Your task to perform on an android device: see creations saved in the google photos Image 0: 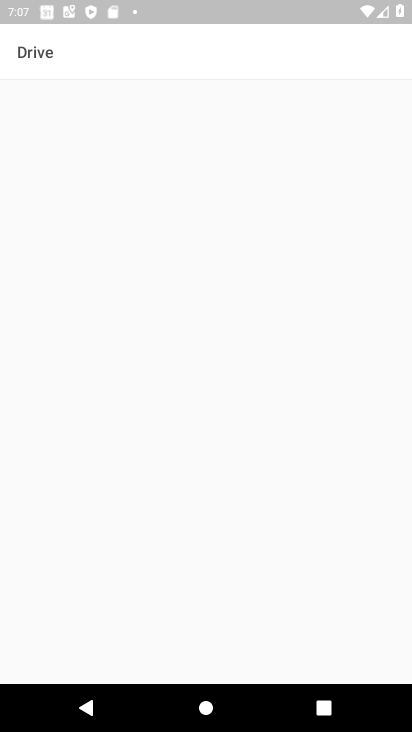
Step 0: press home button
Your task to perform on an android device: see creations saved in the google photos Image 1: 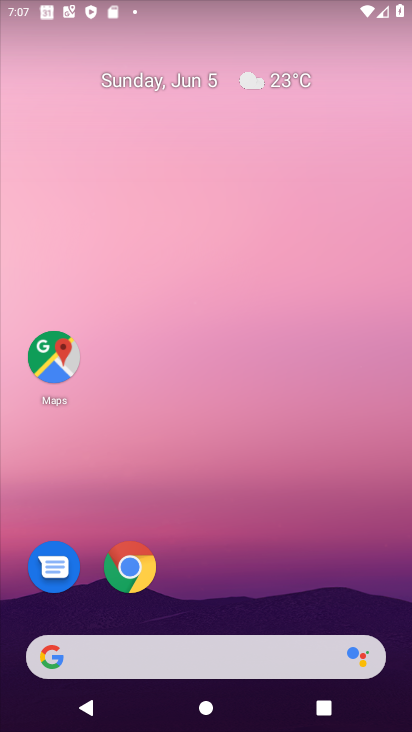
Step 1: drag from (395, 632) to (252, 47)
Your task to perform on an android device: see creations saved in the google photos Image 2: 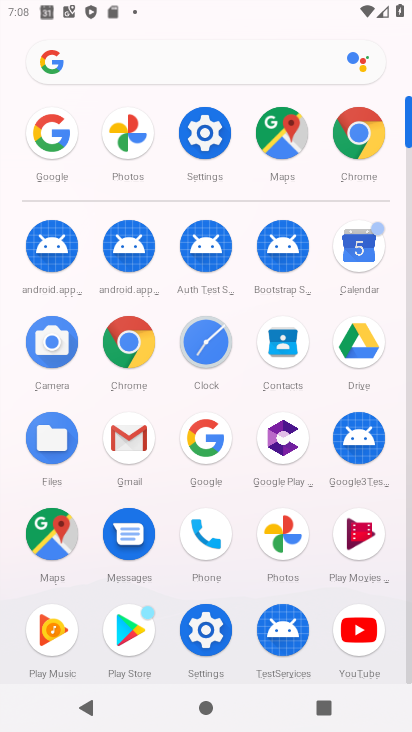
Step 2: click (296, 529)
Your task to perform on an android device: see creations saved in the google photos Image 3: 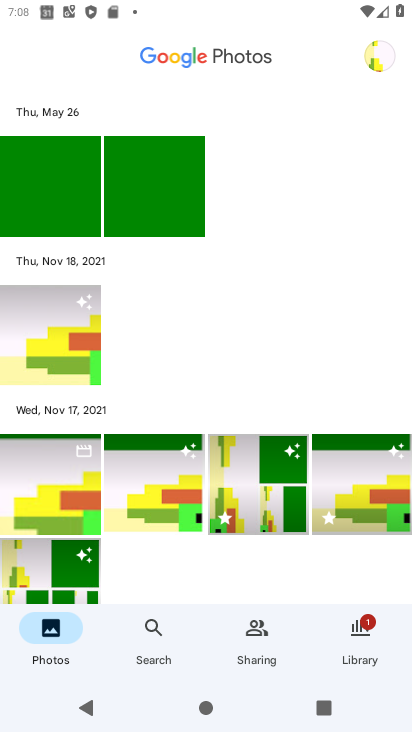
Step 3: click (155, 631)
Your task to perform on an android device: see creations saved in the google photos Image 4: 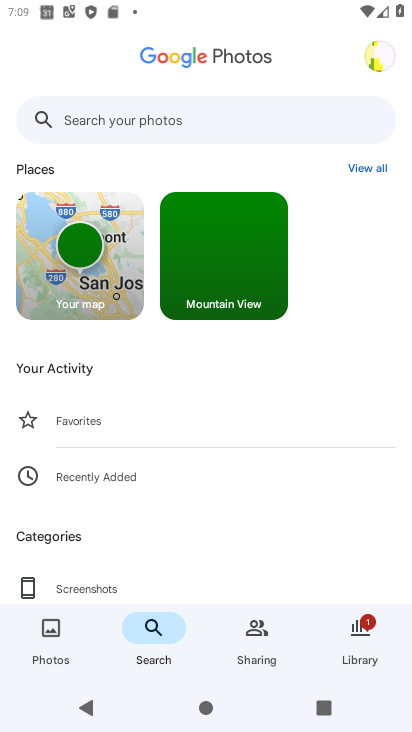
Step 4: drag from (118, 543) to (165, 33)
Your task to perform on an android device: see creations saved in the google photos Image 5: 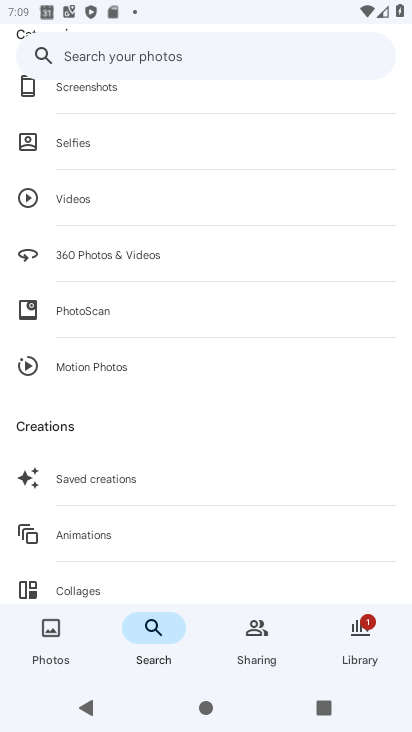
Step 5: click (134, 472)
Your task to perform on an android device: see creations saved in the google photos Image 6: 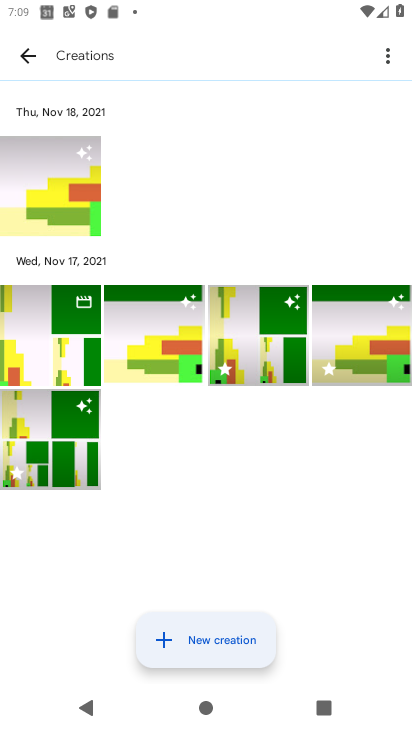
Step 6: task complete